Your task to perform on an android device: Clear the shopping cart on walmart.com. Add "acer nitro" to the cart on walmart.com Image 0: 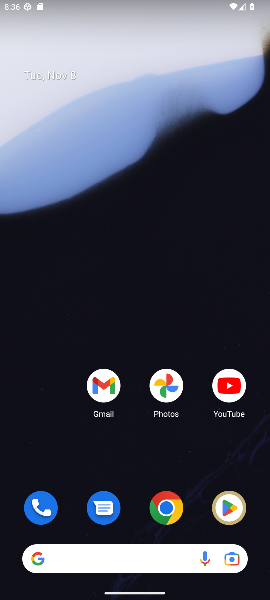
Step 0: click (162, 505)
Your task to perform on an android device: Clear the shopping cart on walmart.com. Add "acer nitro" to the cart on walmart.com Image 1: 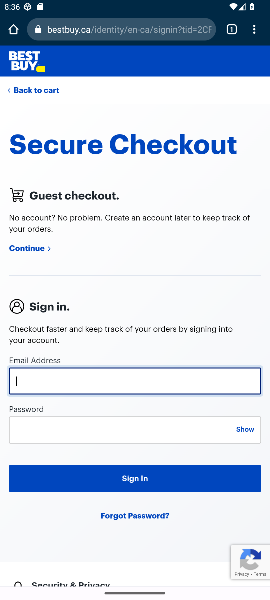
Step 1: click (75, 25)
Your task to perform on an android device: Clear the shopping cart on walmart.com. Add "acer nitro" to the cart on walmart.com Image 2: 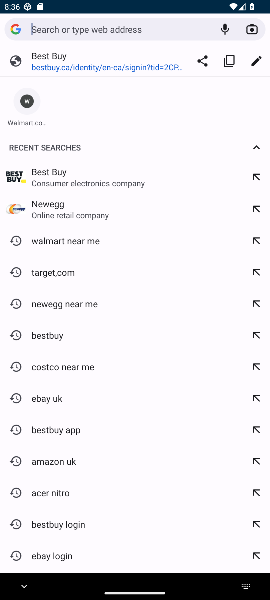
Step 2: type "walmart"
Your task to perform on an android device: Clear the shopping cart on walmart.com. Add "acer nitro" to the cart on walmart.com Image 3: 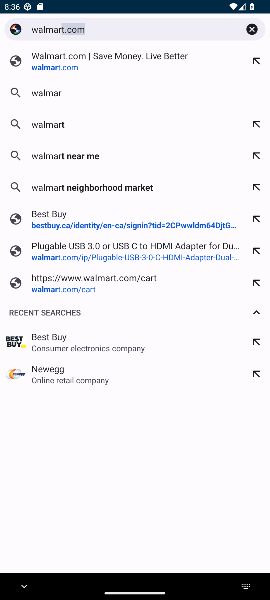
Step 3: type ""
Your task to perform on an android device: Clear the shopping cart on walmart.com. Add "acer nitro" to the cart on walmart.com Image 4: 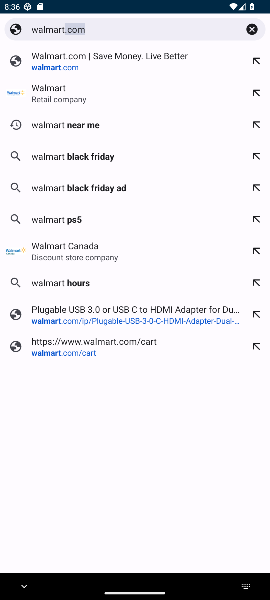
Step 4: click (48, 63)
Your task to perform on an android device: Clear the shopping cart on walmart.com. Add "acer nitro" to the cart on walmart.com Image 5: 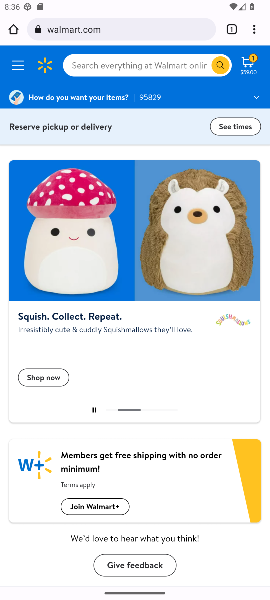
Step 5: click (244, 65)
Your task to perform on an android device: Clear the shopping cart on walmart.com. Add "acer nitro" to the cart on walmart.com Image 6: 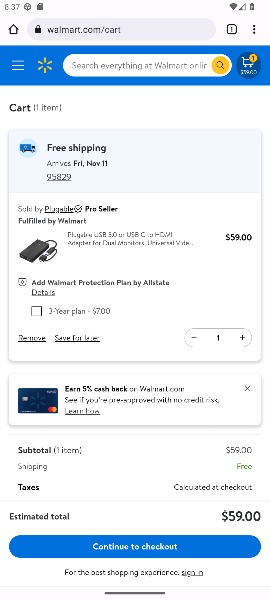
Step 6: click (26, 339)
Your task to perform on an android device: Clear the shopping cart on walmart.com. Add "acer nitro" to the cart on walmart.com Image 7: 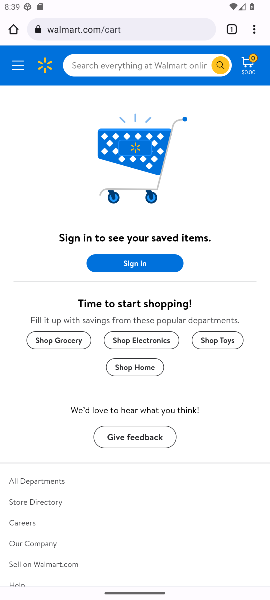
Step 7: task complete